Your task to perform on an android device: turn off smart reply in the gmail app Image 0: 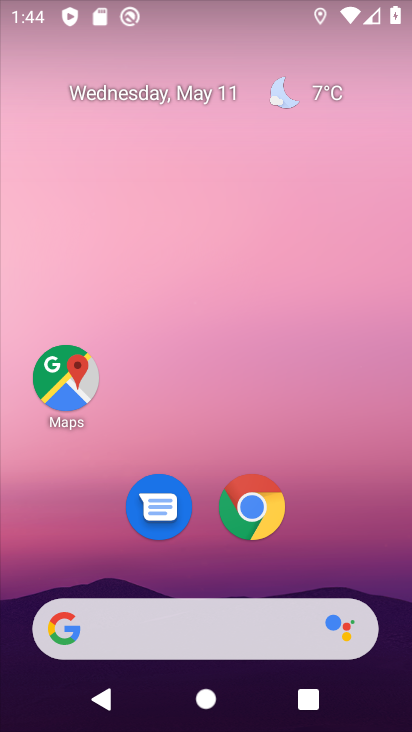
Step 0: drag from (318, 527) to (238, 56)
Your task to perform on an android device: turn off smart reply in the gmail app Image 1: 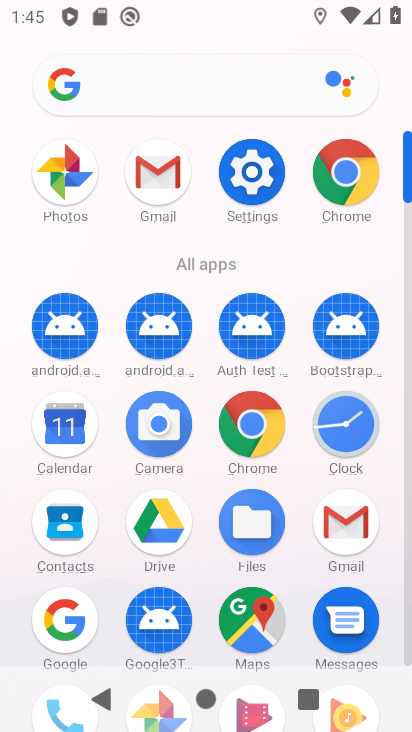
Step 1: drag from (0, 550) to (2, 222)
Your task to perform on an android device: turn off smart reply in the gmail app Image 2: 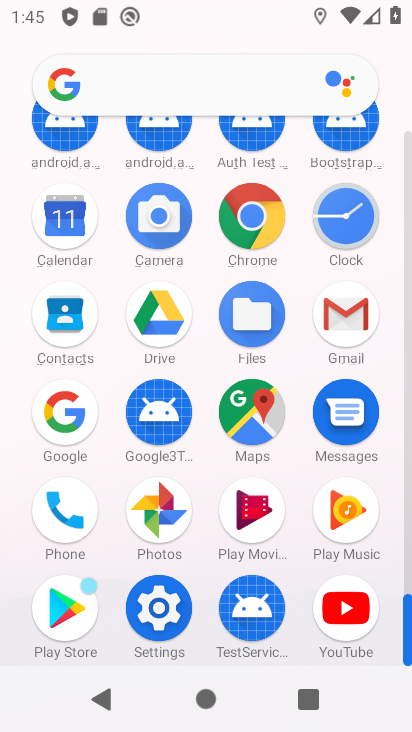
Step 2: click (341, 308)
Your task to perform on an android device: turn off smart reply in the gmail app Image 3: 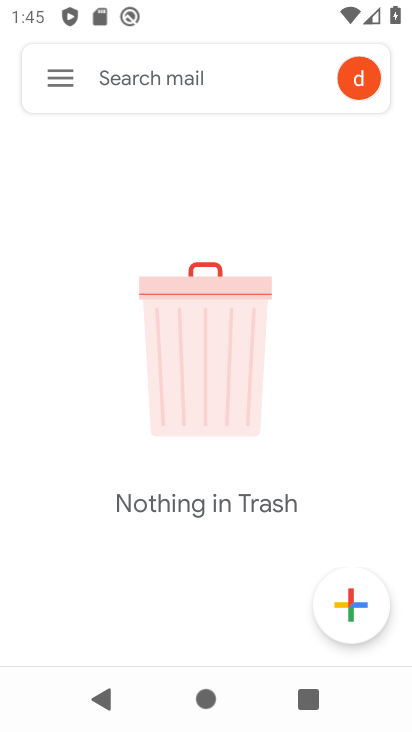
Step 3: click (54, 76)
Your task to perform on an android device: turn off smart reply in the gmail app Image 4: 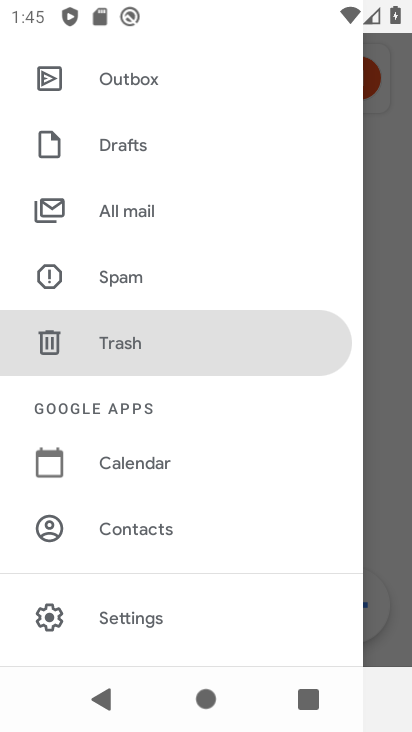
Step 4: drag from (159, 581) to (168, 105)
Your task to perform on an android device: turn off smart reply in the gmail app Image 5: 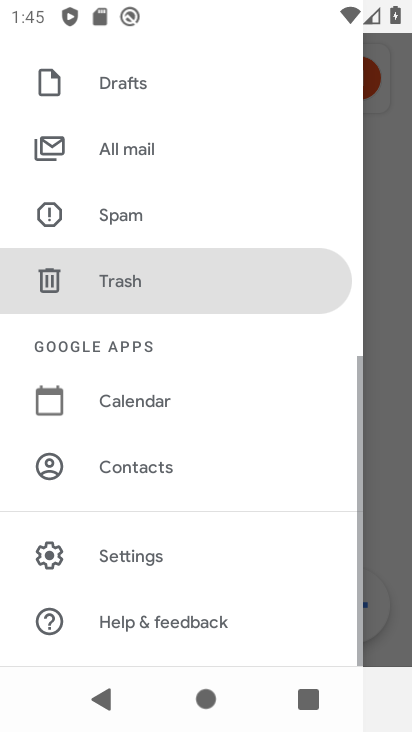
Step 5: click (104, 550)
Your task to perform on an android device: turn off smart reply in the gmail app Image 6: 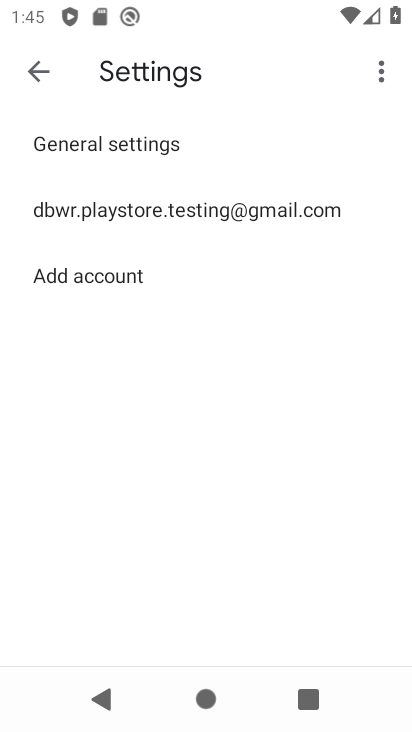
Step 6: click (113, 206)
Your task to perform on an android device: turn off smart reply in the gmail app Image 7: 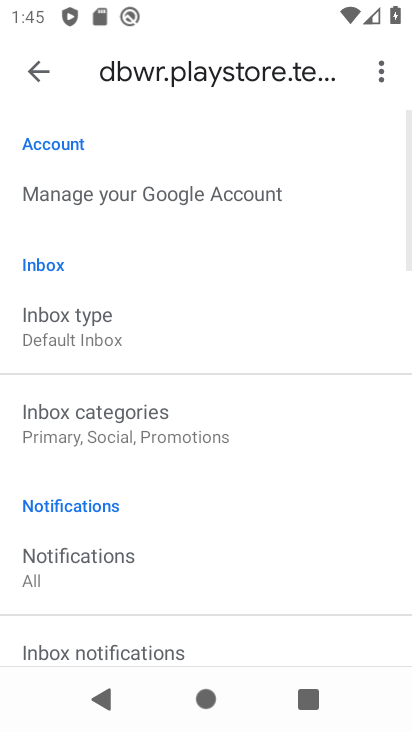
Step 7: drag from (213, 545) to (225, 190)
Your task to perform on an android device: turn off smart reply in the gmail app Image 8: 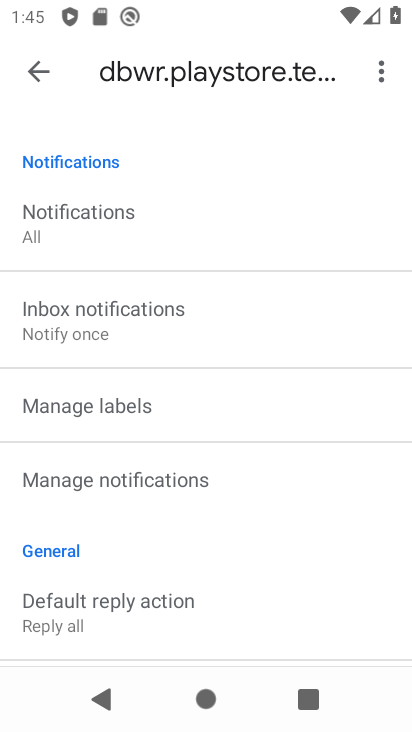
Step 8: drag from (241, 507) to (246, 237)
Your task to perform on an android device: turn off smart reply in the gmail app Image 9: 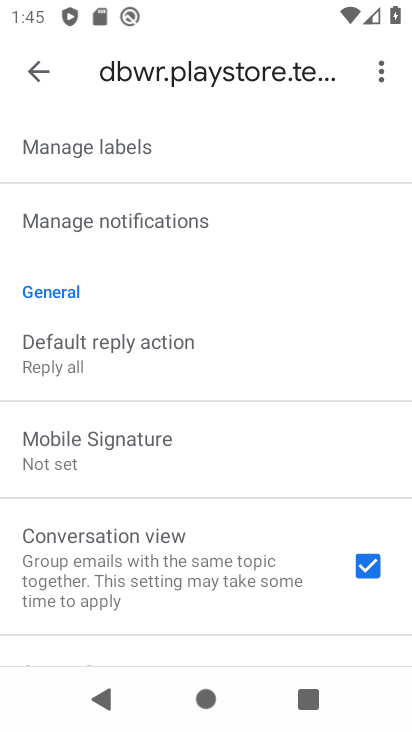
Step 9: drag from (247, 491) to (236, 187)
Your task to perform on an android device: turn off smart reply in the gmail app Image 10: 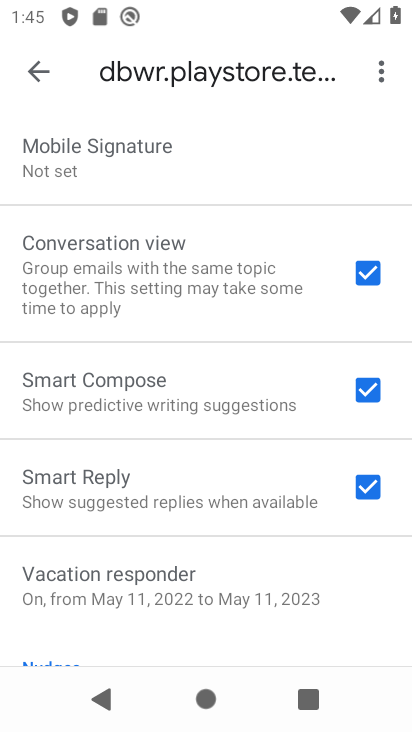
Step 10: drag from (180, 454) to (224, 137)
Your task to perform on an android device: turn off smart reply in the gmail app Image 11: 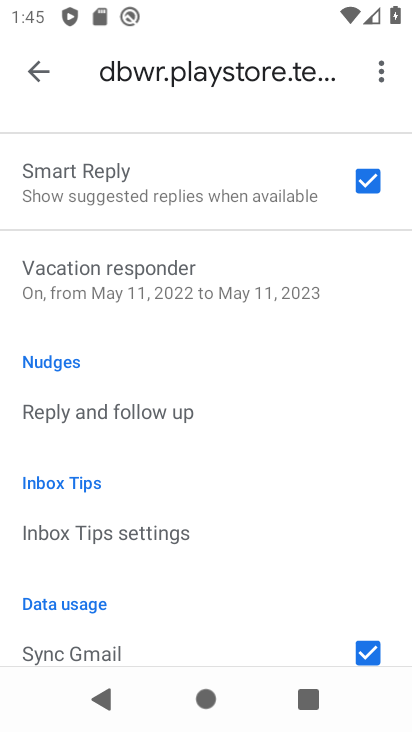
Step 11: click (361, 178)
Your task to perform on an android device: turn off smart reply in the gmail app Image 12: 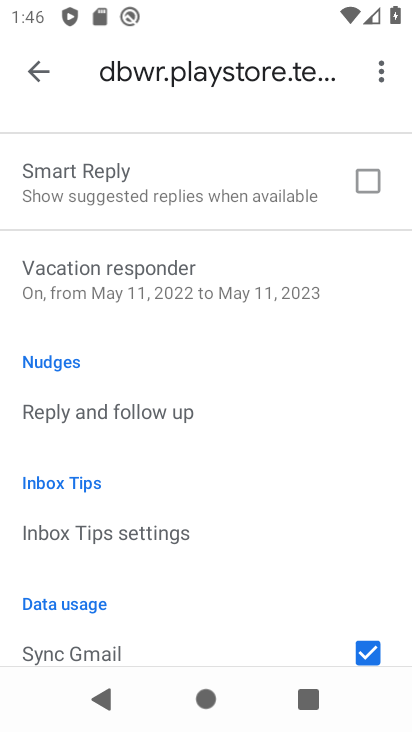
Step 12: task complete